Your task to perform on an android device: turn on airplane mode Image 0: 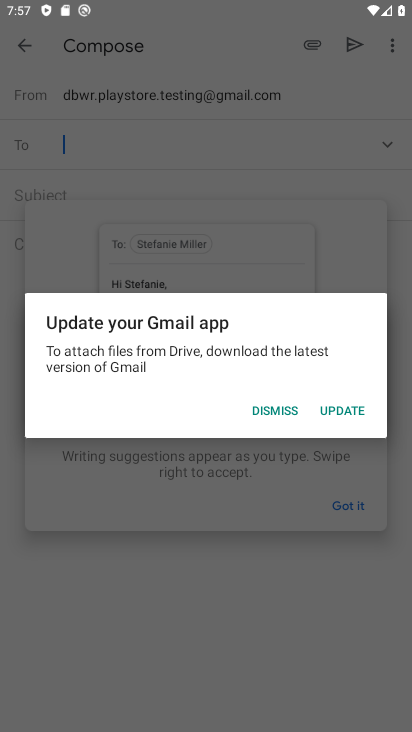
Step 0: press home button
Your task to perform on an android device: turn on airplane mode Image 1: 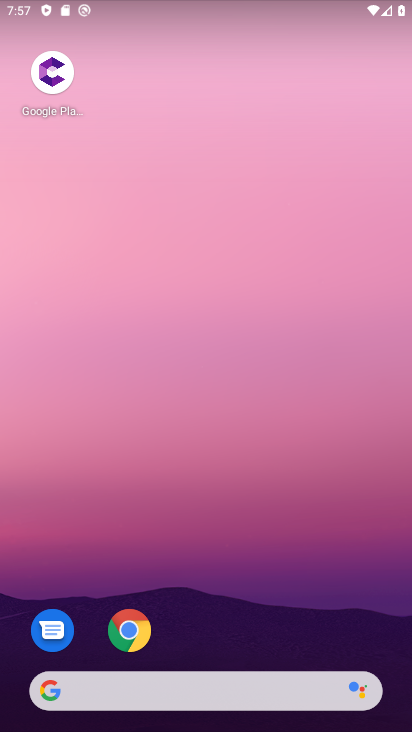
Step 1: drag from (193, 650) to (280, 278)
Your task to perform on an android device: turn on airplane mode Image 2: 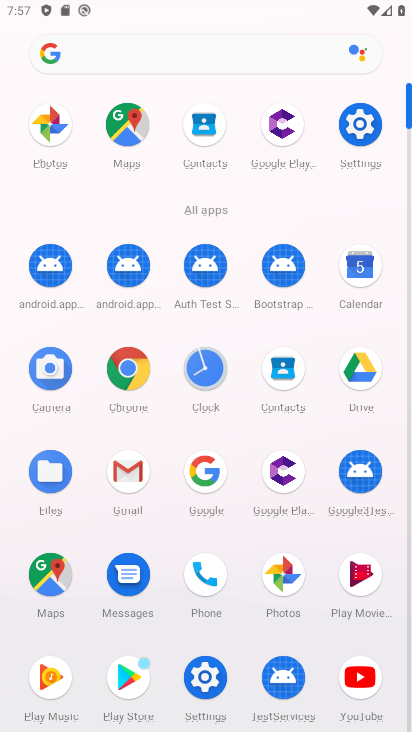
Step 2: click (365, 124)
Your task to perform on an android device: turn on airplane mode Image 3: 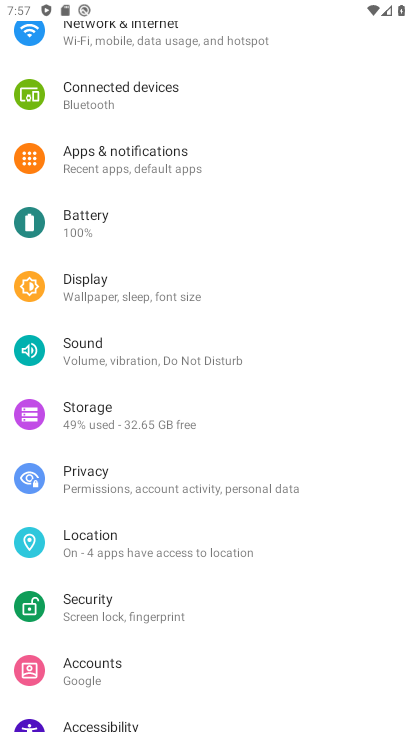
Step 3: drag from (108, 107) to (89, 500)
Your task to perform on an android device: turn on airplane mode Image 4: 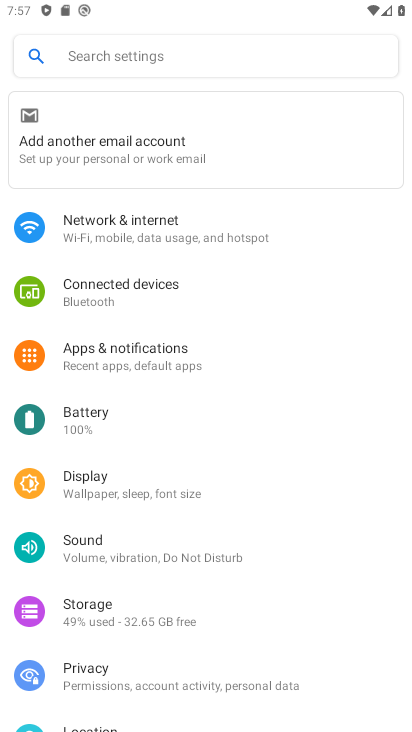
Step 4: click (66, 226)
Your task to perform on an android device: turn on airplane mode Image 5: 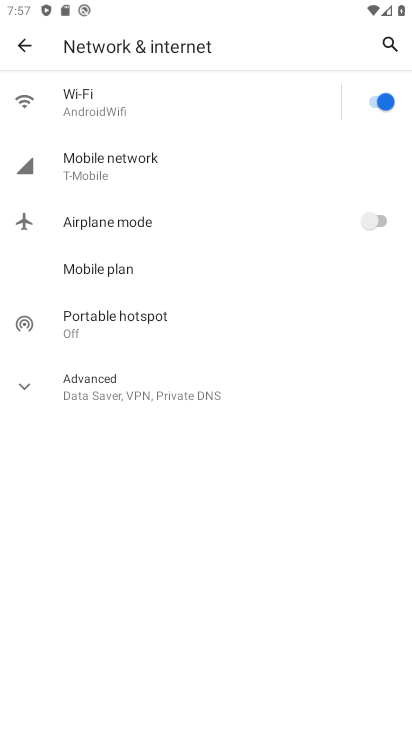
Step 5: click (387, 220)
Your task to perform on an android device: turn on airplane mode Image 6: 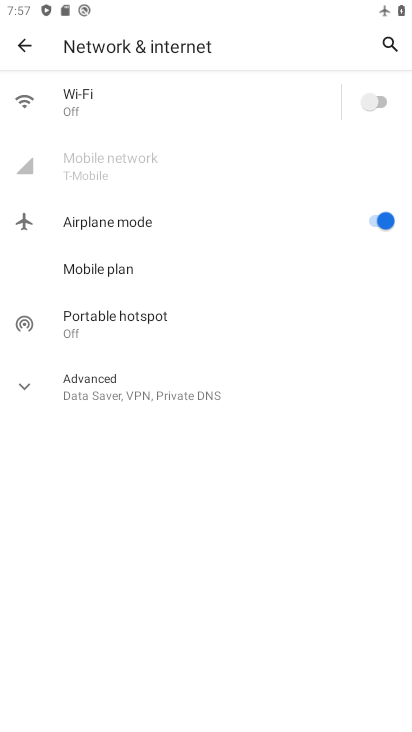
Step 6: task complete